Your task to perform on an android device: When is my next appointment? Image 0: 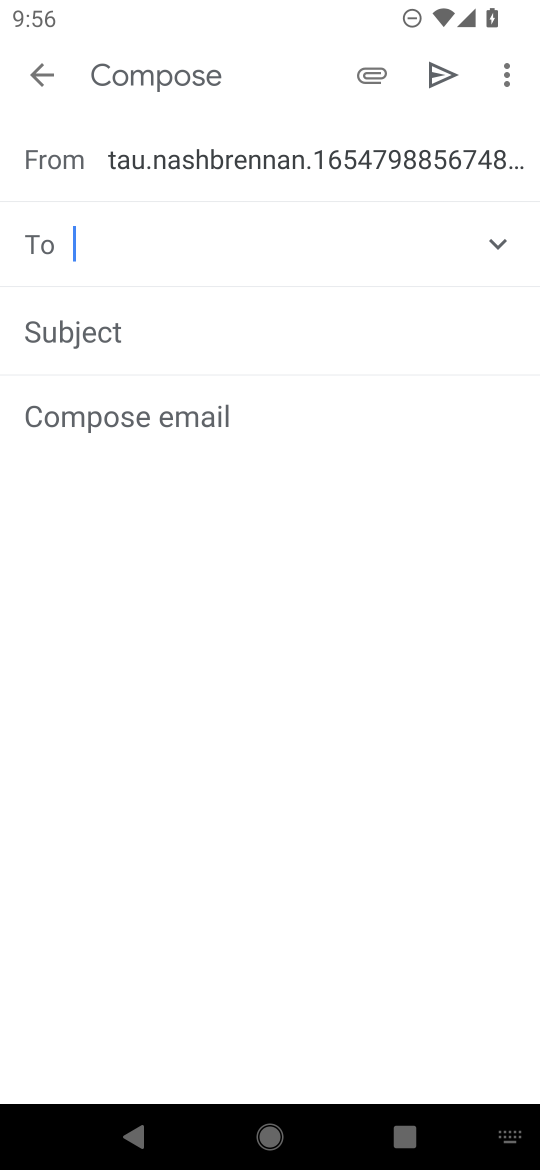
Step 0: press home button
Your task to perform on an android device: When is my next appointment? Image 1: 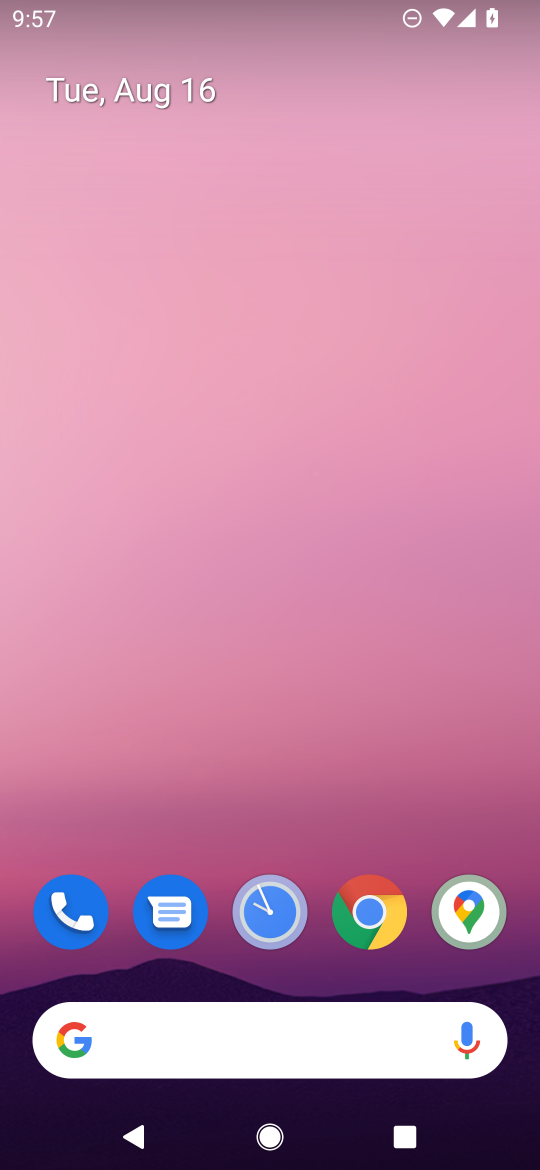
Step 1: click (118, 98)
Your task to perform on an android device: When is my next appointment? Image 2: 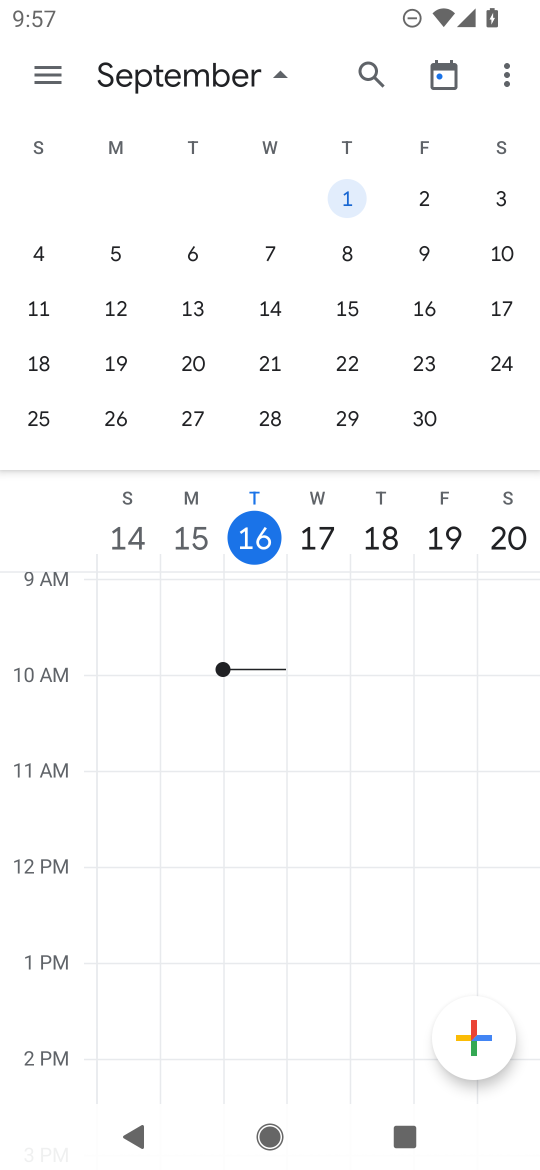
Step 2: task complete